Your task to perform on an android device: turn on sleep mode Image 0: 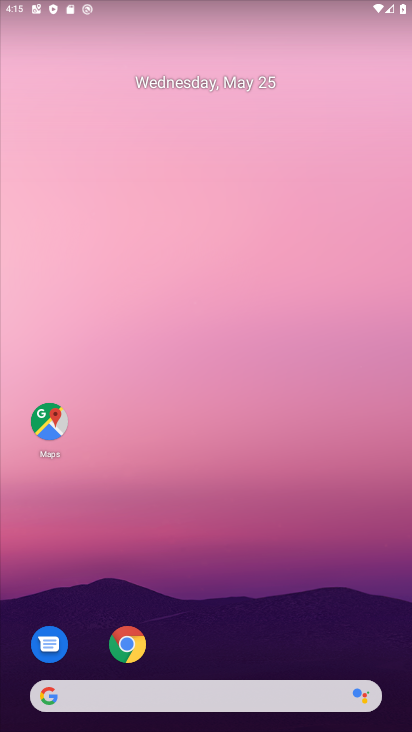
Step 0: drag from (304, 654) to (336, 0)
Your task to perform on an android device: turn on sleep mode Image 1: 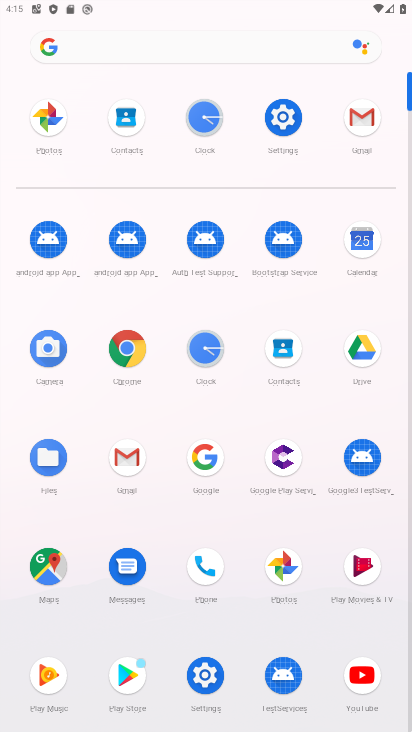
Step 1: click (280, 119)
Your task to perform on an android device: turn on sleep mode Image 2: 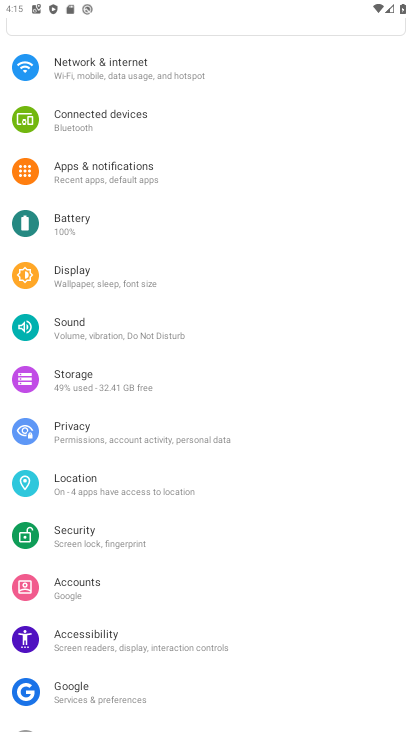
Step 2: click (68, 284)
Your task to perform on an android device: turn on sleep mode Image 3: 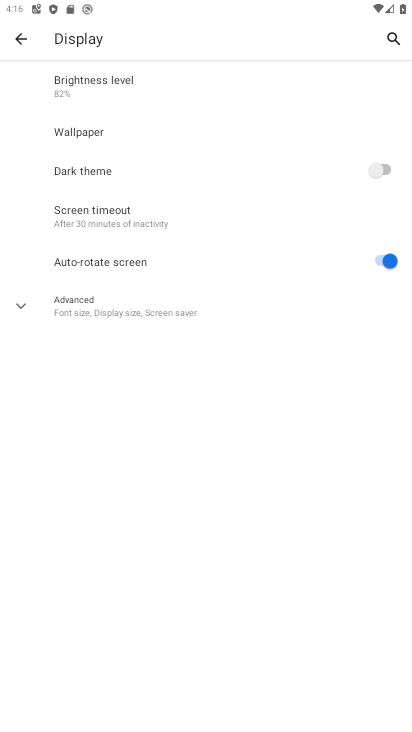
Step 3: click (16, 307)
Your task to perform on an android device: turn on sleep mode Image 4: 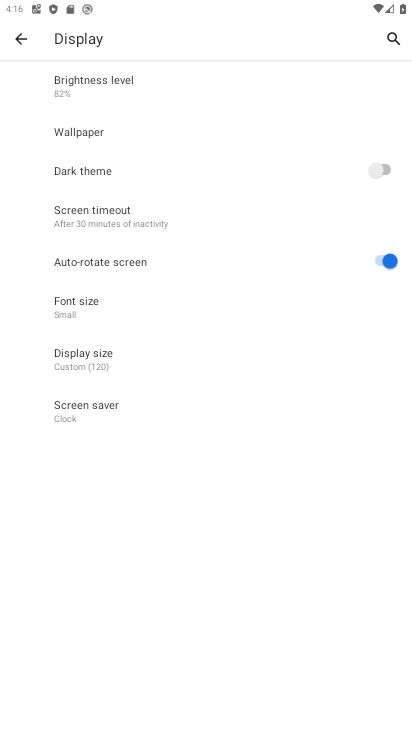
Step 4: task complete